Your task to perform on an android device: turn off smart reply in the gmail app Image 0: 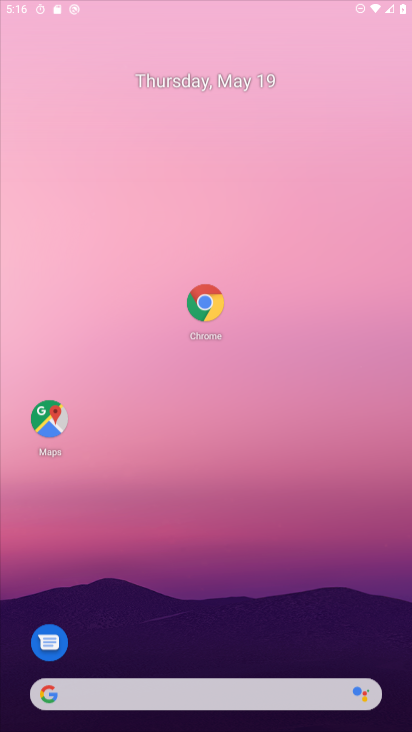
Step 0: drag from (169, 671) to (200, 284)
Your task to perform on an android device: turn off smart reply in the gmail app Image 1: 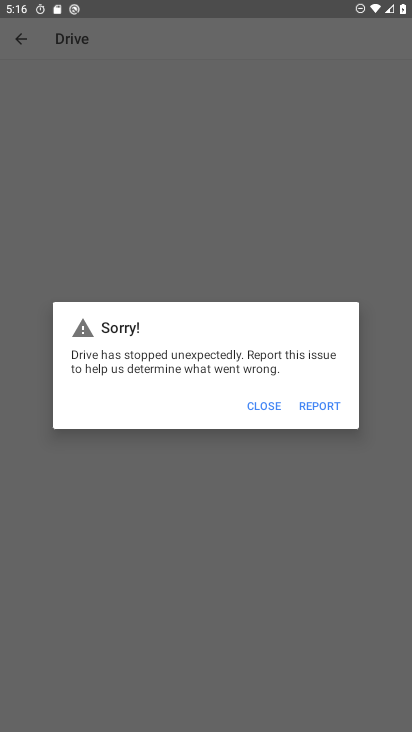
Step 1: click (272, 404)
Your task to perform on an android device: turn off smart reply in the gmail app Image 2: 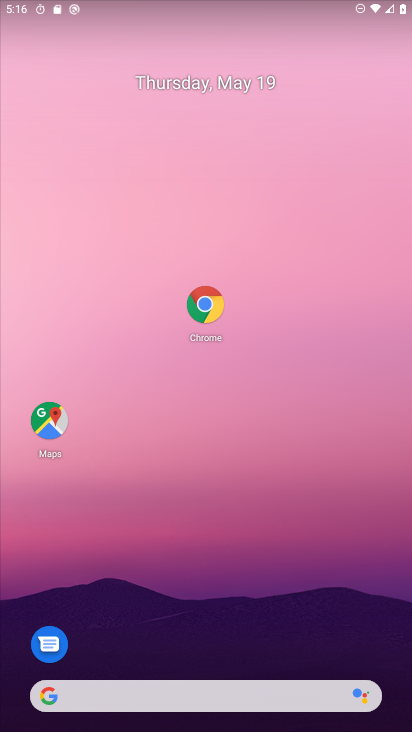
Step 2: drag from (237, 672) to (224, 168)
Your task to perform on an android device: turn off smart reply in the gmail app Image 3: 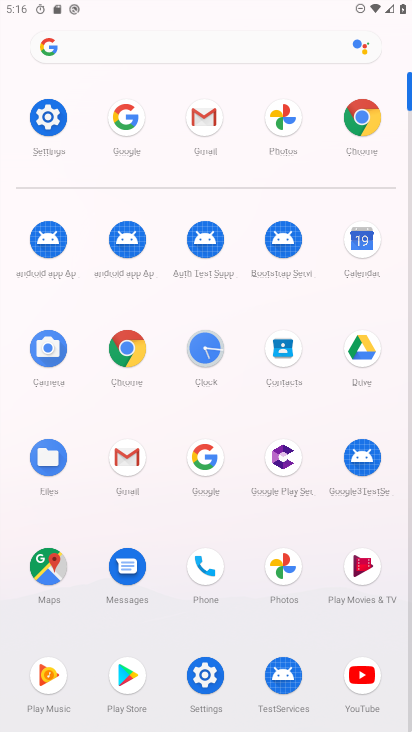
Step 3: click (136, 455)
Your task to perform on an android device: turn off smart reply in the gmail app Image 4: 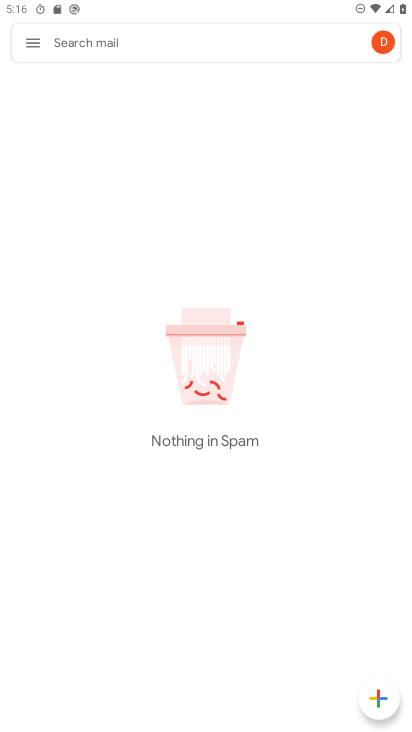
Step 4: click (31, 42)
Your task to perform on an android device: turn off smart reply in the gmail app Image 5: 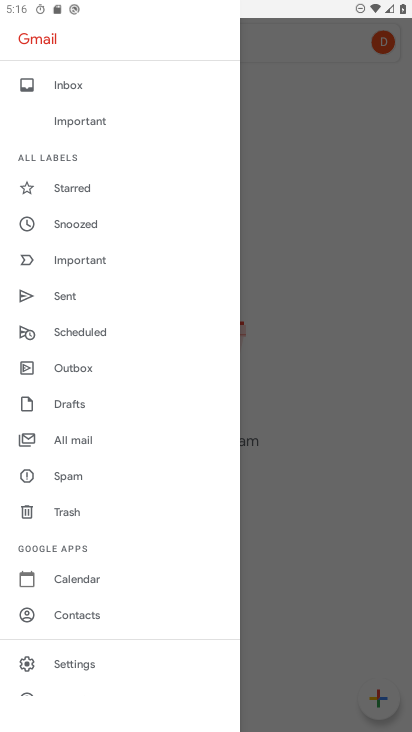
Step 5: click (67, 660)
Your task to perform on an android device: turn off smart reply in the gmail app Image 6: 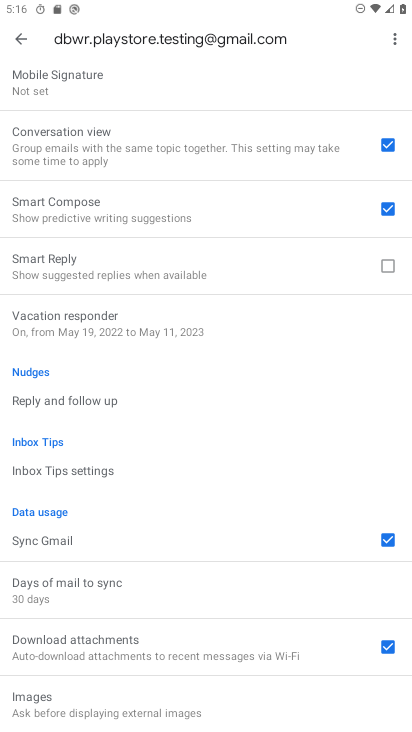
Step 6: task complete